Your task to perform on an android device: delete location history Image 0: 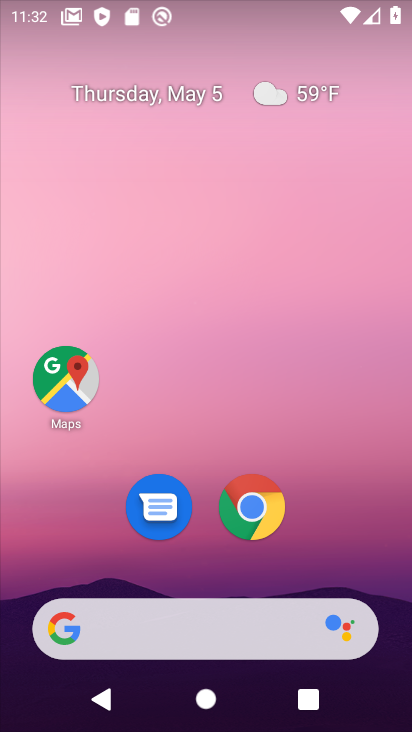
Step 0: drag from (310, 506) to (244, 291)
Your task to perform on an android device: delete location history Image 1: 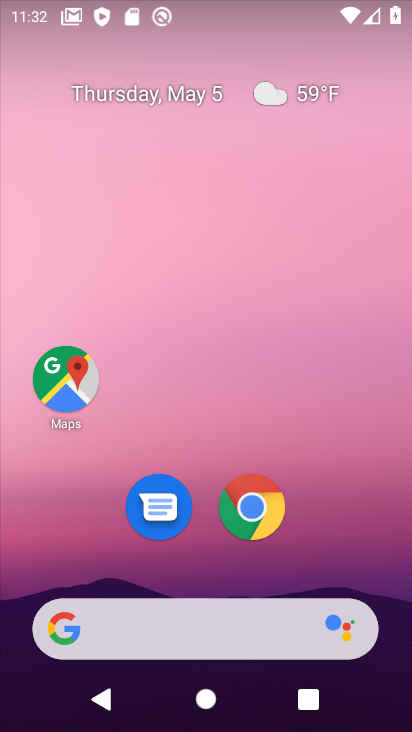
Step 1: click (70, 380)
Your task to perform on an android device: delete location history Image 2: 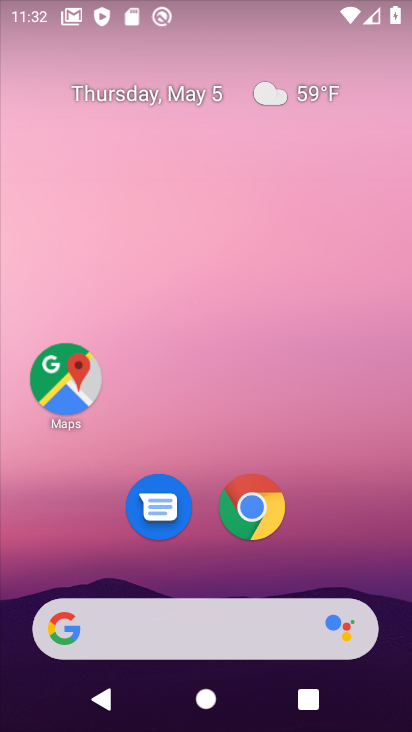
Step 2: click (70, 380)
Your task to perform on an android device: delete location history Image 3: 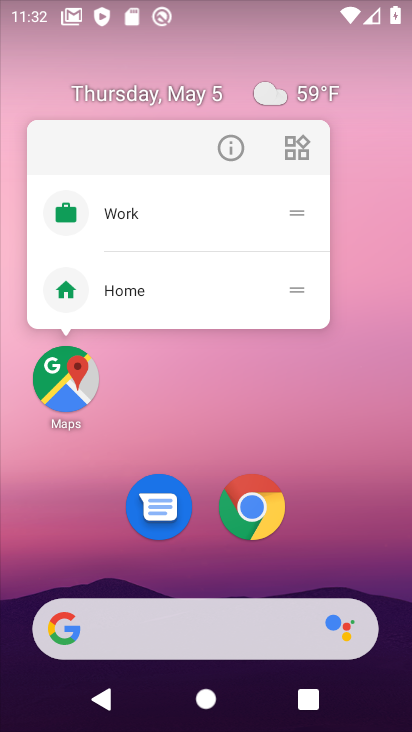
Step 3: click (70, 380)
Your task to perform on an android device: delete location history Image 4: 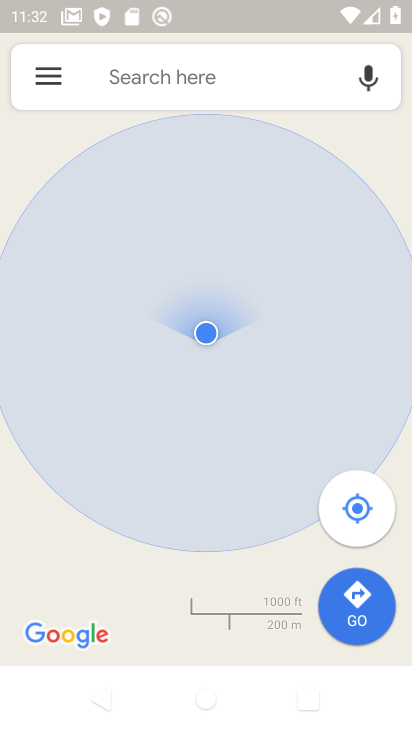
Step 4: click (59, 86)
Your task to perform on an android device: delete location history Image 5: 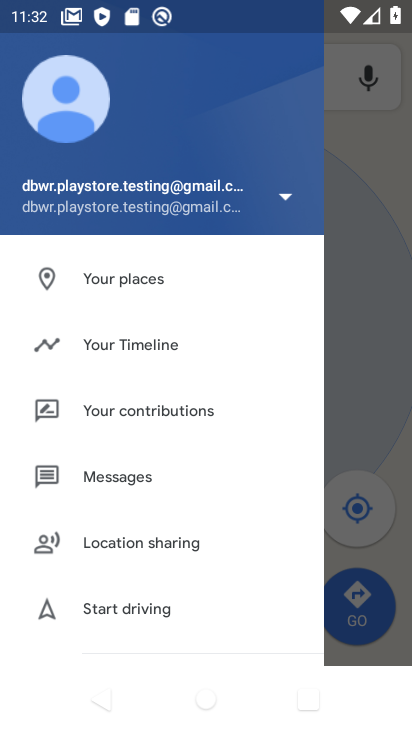
Step 5: click (148, 343)
Your task to perform on an android device: delete location history Image 6: 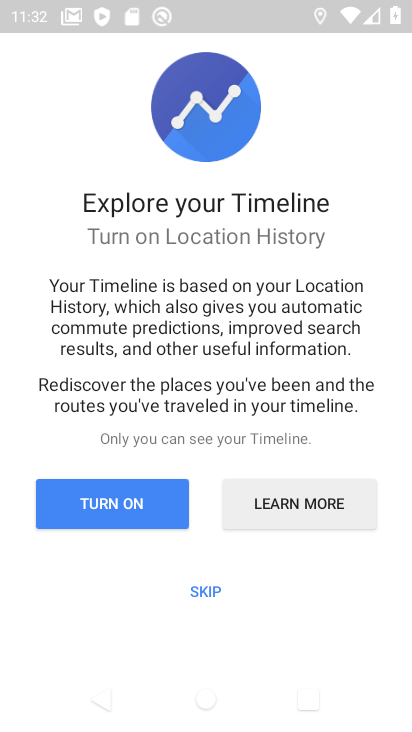
Step 6: click (135, 499)
Your task to perform on an android device: delete location history Image 7: 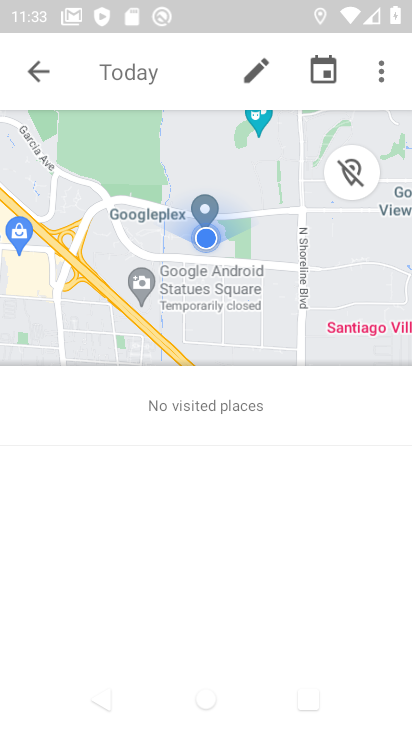
Step 7: click (383, 72)
Your task to perform on an android device: delete location history Image 8: 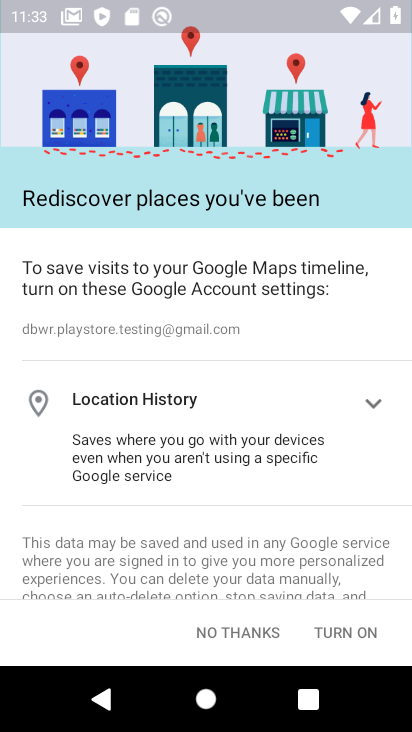
Step 8: click (346, 643)
Your task to perform on an android device: delete location history Image 9: 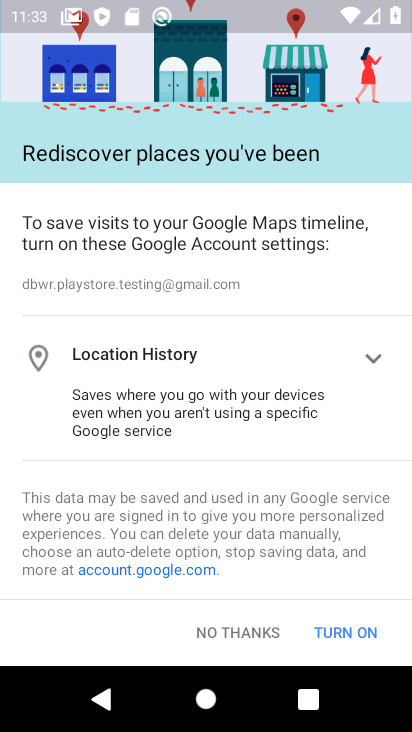
Step 9: click (352, 632)
Your task to perform on an android device: delete location history Image 10: 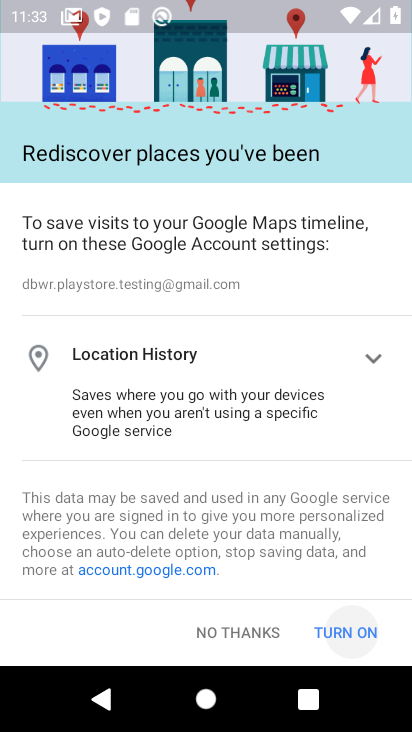
Step 10: click (352, 632)
Your task to perform on an android device: delete location history Image 11: 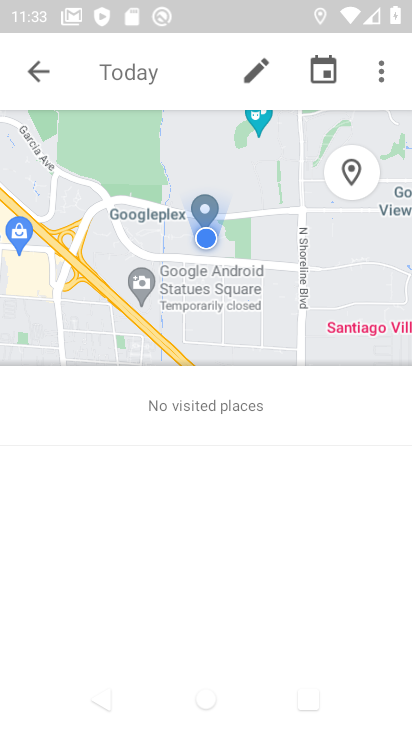
Step 11: click (389, 68)
Your task to perform on an android device: delete location history Image 12: 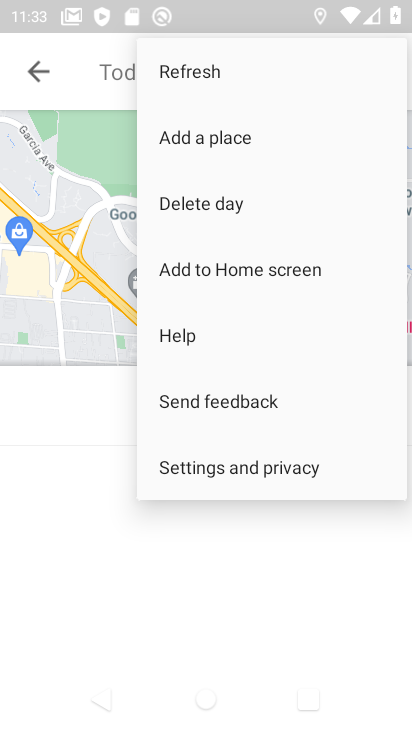
Step 12: click (267, 462)
Your task to perform on an android device: delete location history Image 13: 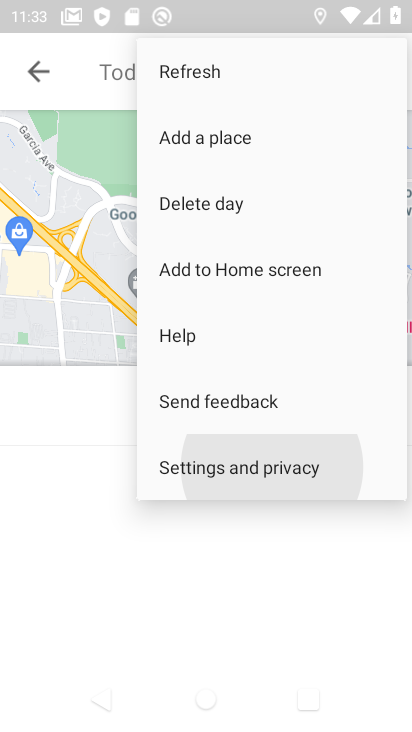
Step 13: click (267, 462)
Your task to perform on an android device: delete location history Image 14: 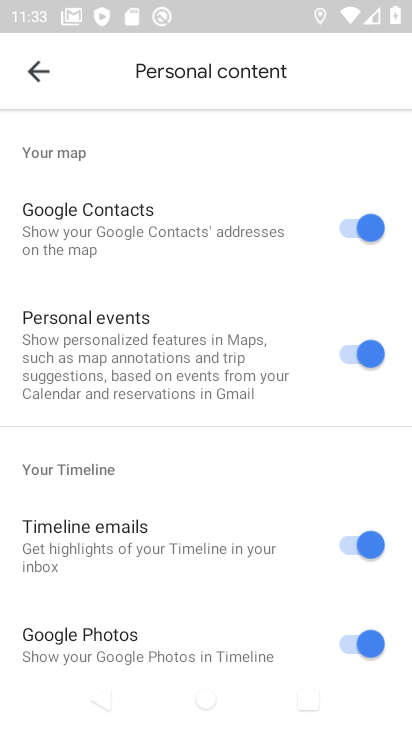
Step 14: drag from (151, 510) to (180, 177)
Your task to perform on an android device: delete location history Image 15: 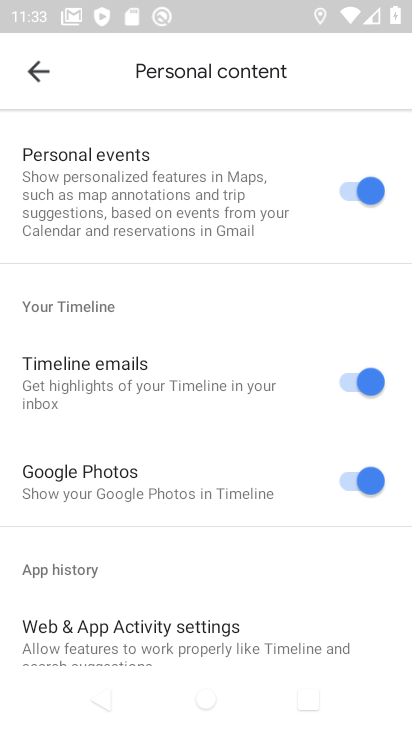
Step 15: drag from (139, 545) to (184, 169)
Your task to perform on an android device: delete location history Image 16: 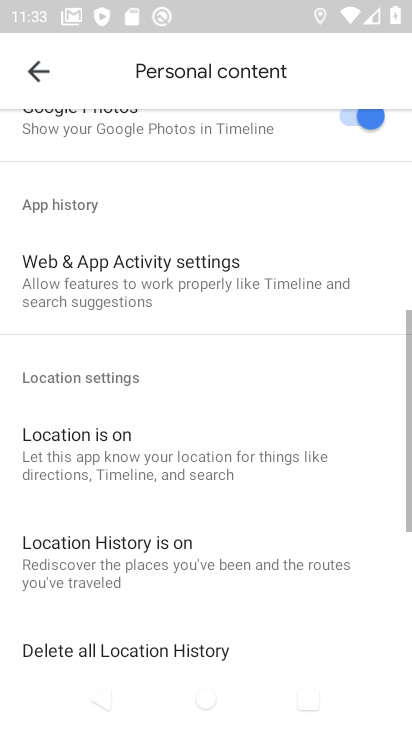
Step 16: drag from (189, 561) to (202, 212)
Your task to perform on an android device: delete location history Image 17: 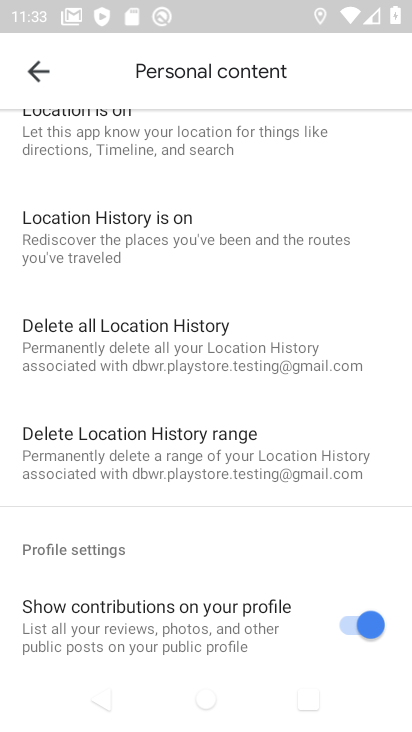
Step 17: click (141, 341)
Your task to perform on an android device: delete location history Image 18: 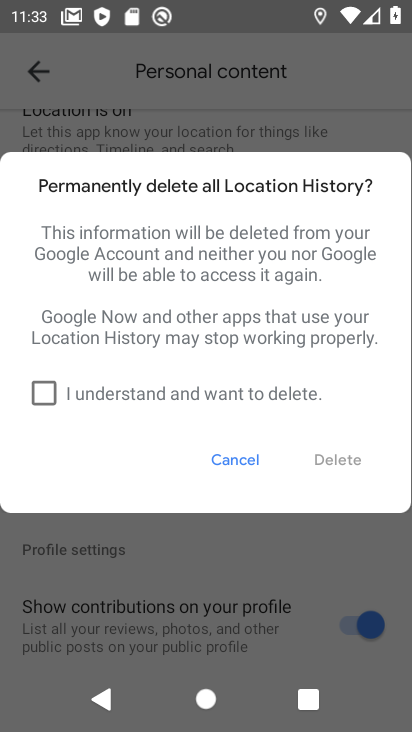
Step 18: click (52, 393)
Your task to perform on an android device: delete location history Image 19: 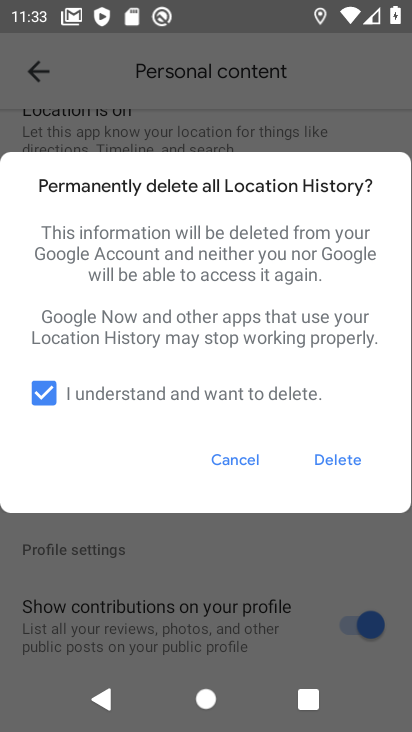
Step 19: click (334, 456)
Your task to perform on an android device: delete location history Image 20: 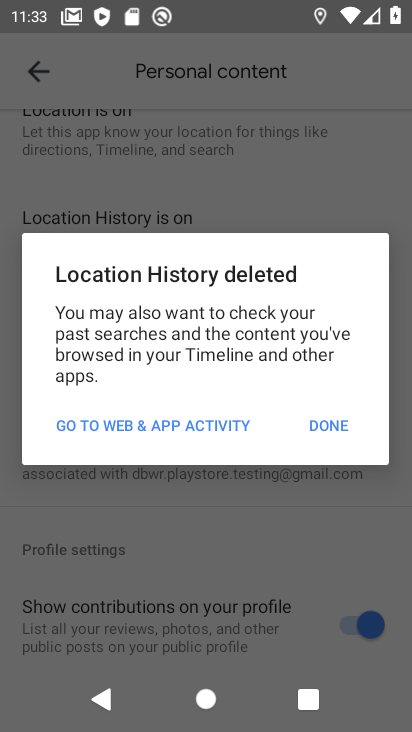
Step 20: task complete